Your task to perform on an android device: find photos in the google photos app Image 0: 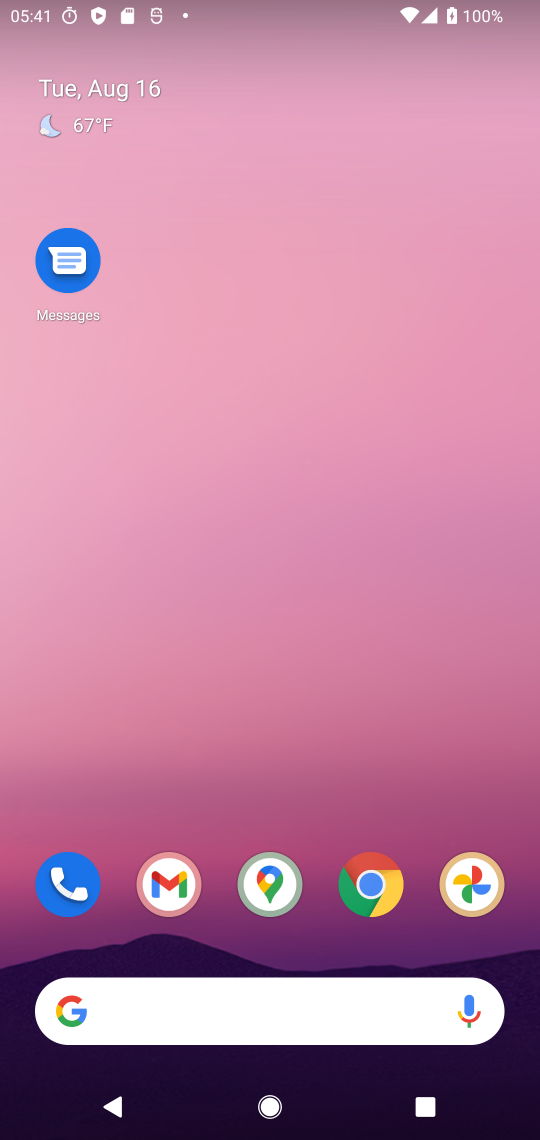
Step 0: click (481, 883)
Your task to perform on an android device: find photos in the google photos app Image 1: 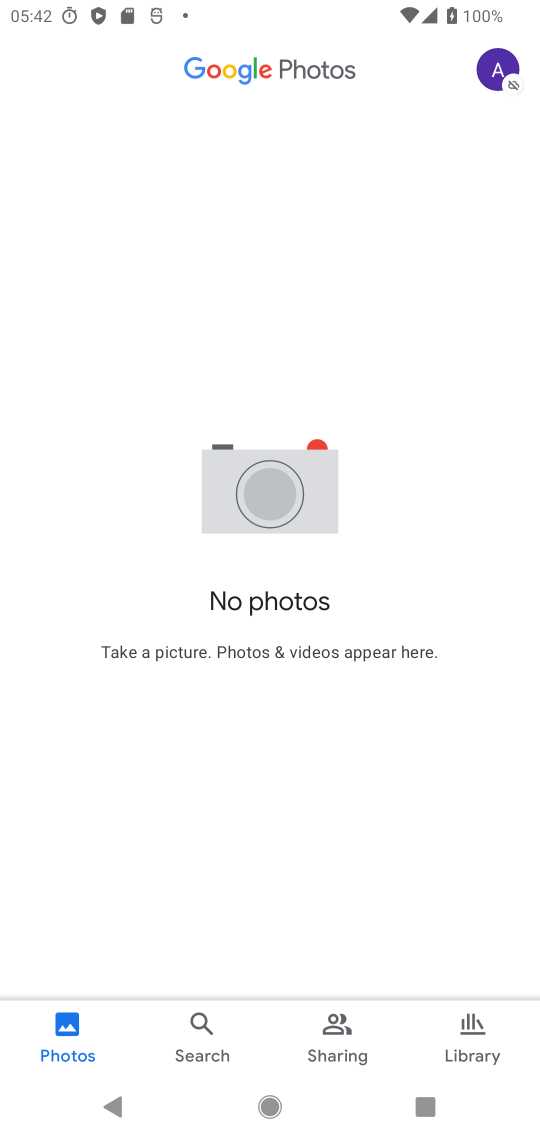
Step 1: task complete